Your task to perform on an android device: Open the calendar app, open the side menu, and click the "Day" option Image 0: 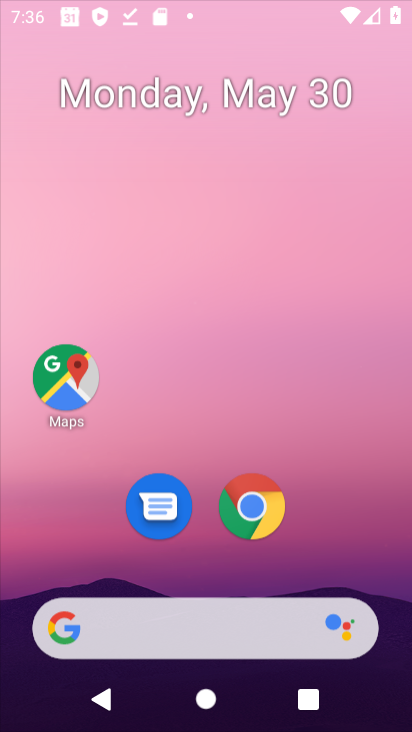
Step 0: click (246, 506)
Your task to perform on an android device: Open the calendar app, open the side menu, and click the "Day" option Image 1: 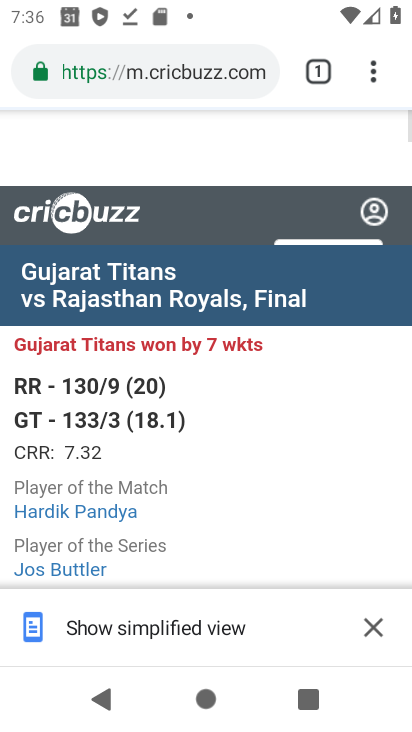
Step 1: click (336, 75)
Your task to perform on an android device: Open the calendar app, open the side menu, and click the "Day" option Image 2: 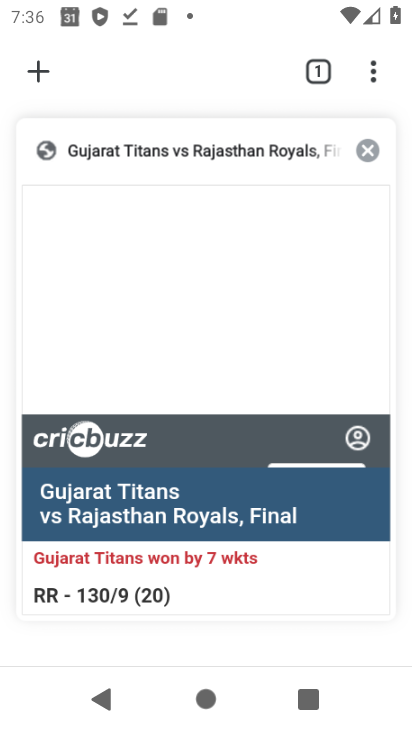
Step 2: click (50, 73)
Your task to perform on an android device: Open the calendar app, open the side menu, and click the "Day" option Image 3: 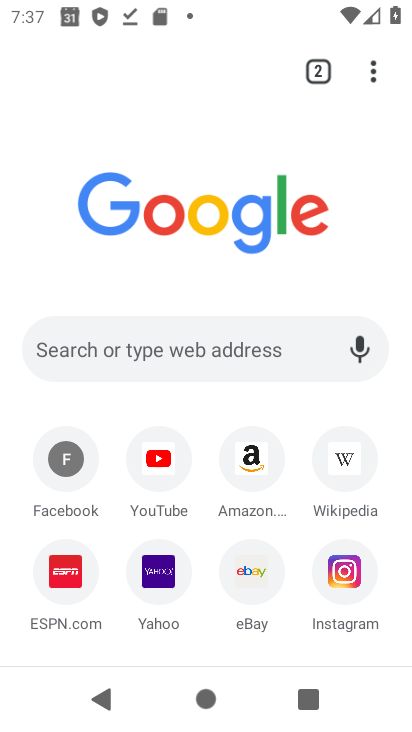
Step 3: press home button
Your task to perform on an android device: Open the calendar app, open the side menu, and click the "Day" option Image 4: 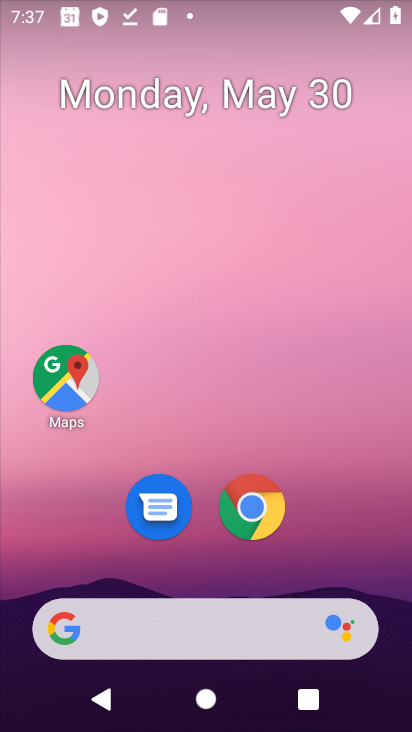
Step 4: drag from (341, 591) to (337, 277)
Your task to perform on an android device: Open the calendar app, open the side menu, and click the "Day" option Image 5: 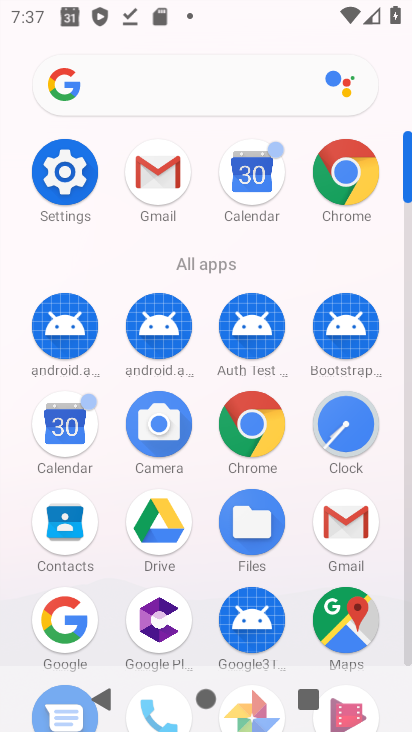
Step 5: click (76, 436)
Your task to perform on an android device: Open the calendar app, open the side menu, and click the "Day" option Image 6: 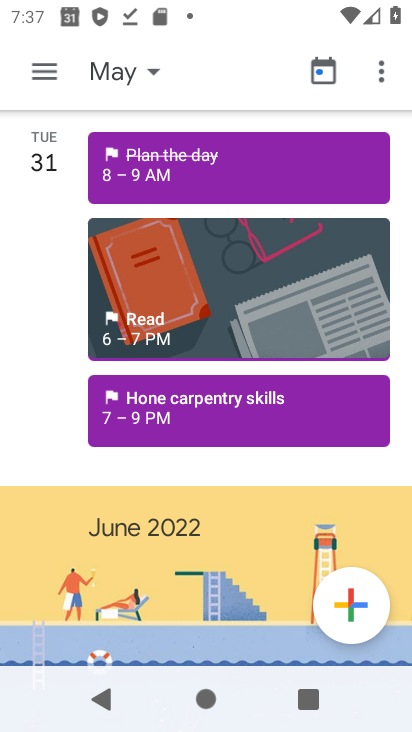
Step 6: click (36, 77)
Your task to perform on an android device: Open the calendar app, open the side menu, and click the "Day" option Image 7: 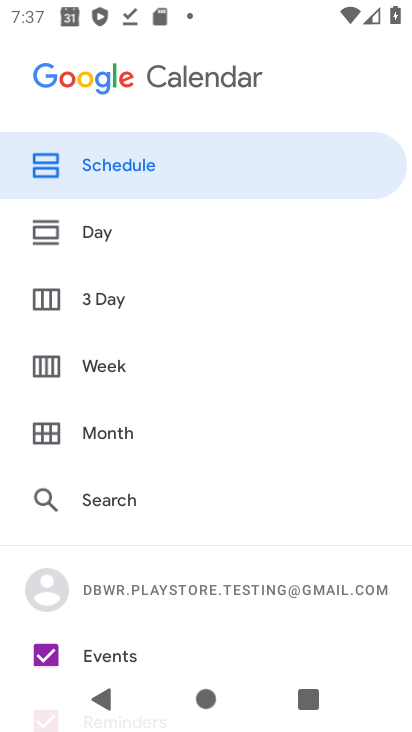
Step 7: click (81, 241)
Your task to perform on an android device: Open the calendar app, open the side menu, and click the "Day" option Image 8: 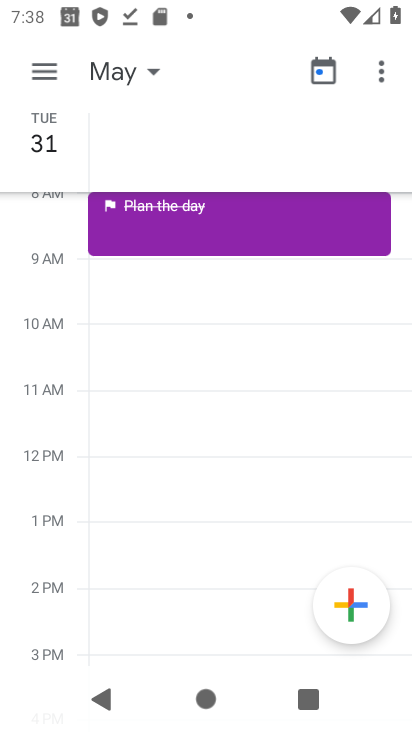
Step 8: task complete